Your task to perform on an android device: change the clock display to show seconds Image 0: 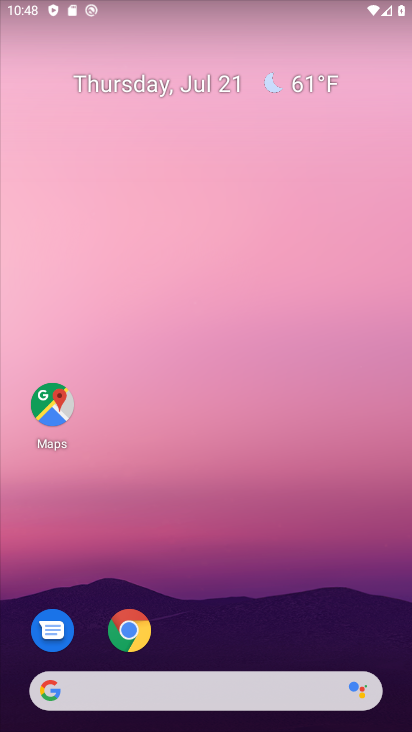
Step 0: drag from (196, 680) to (228, 259)
Your task to perform on an android device: change the clock display to show seconds Image 1: 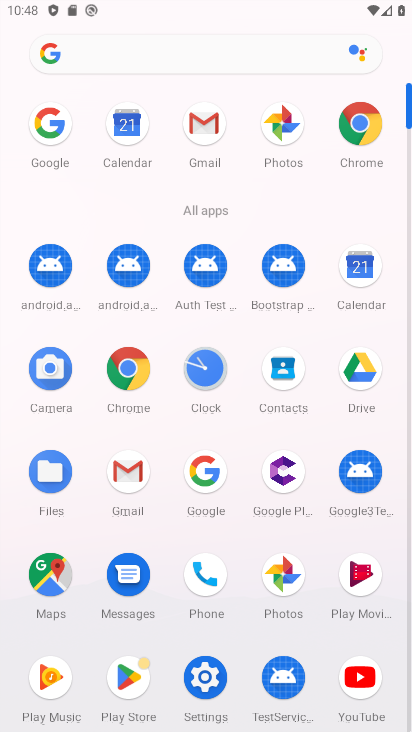
Step 1: click (211, 362)
Your task to perform on an android device: change the clock display to show seconds Image 2: 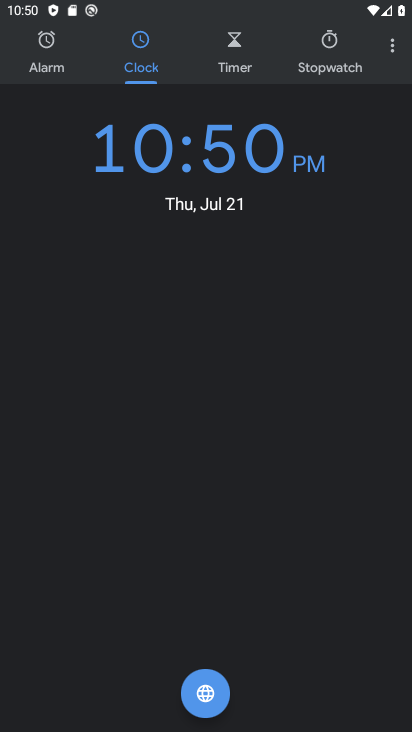
Step 2: click (395, 50)
Your task to perform on an android device: change the clock display to show seconds Image 3: 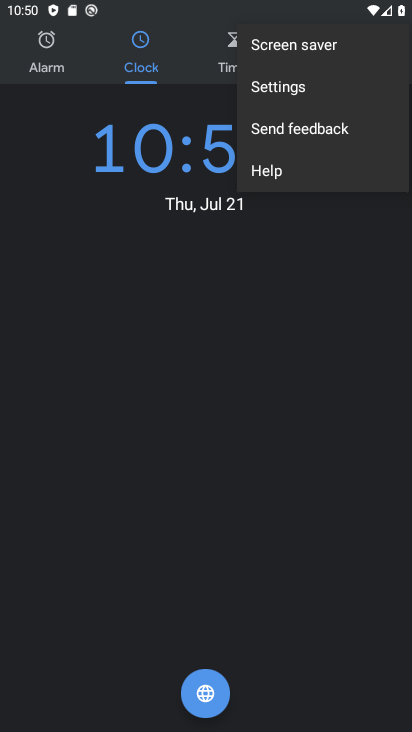
Step 3: click (290, 89)
Your task to perform on an android device: change the clock display to show seconds Image 4: 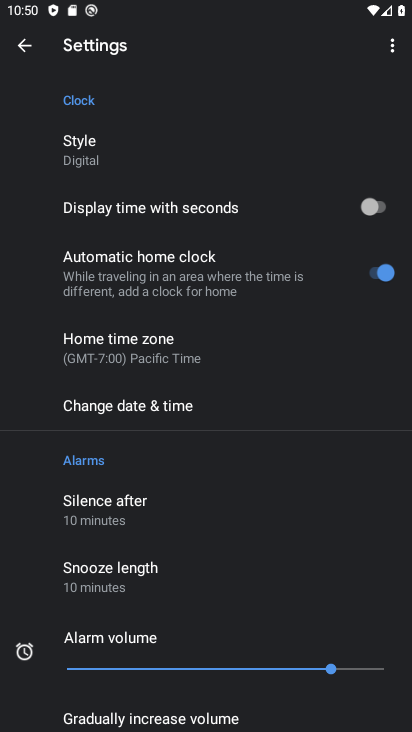
Step 4: click (383, 213)
Your task to perform on an android device: change the clock display to show seconds Image 5: 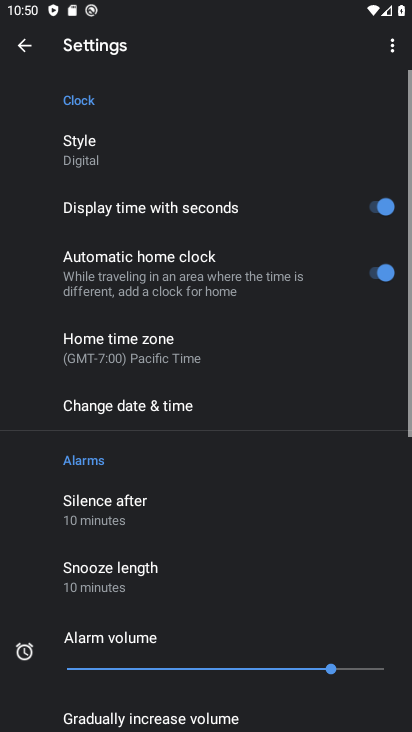
Step 5: task complete